Your task to perform on an android device: change the clock style Image 0: 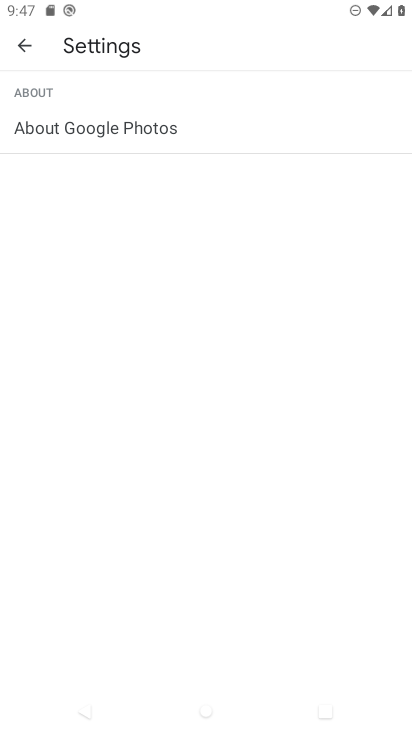
Step 0: press home button
Your task to perform on an android device: change the clock style Image 1: 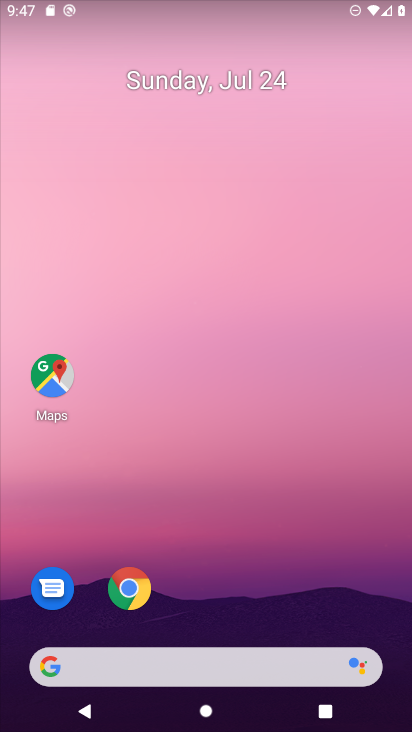
Step 1: drag from (232, 633) to (253, 10)
Your task to perform on an android device: change the clock style Image 2: 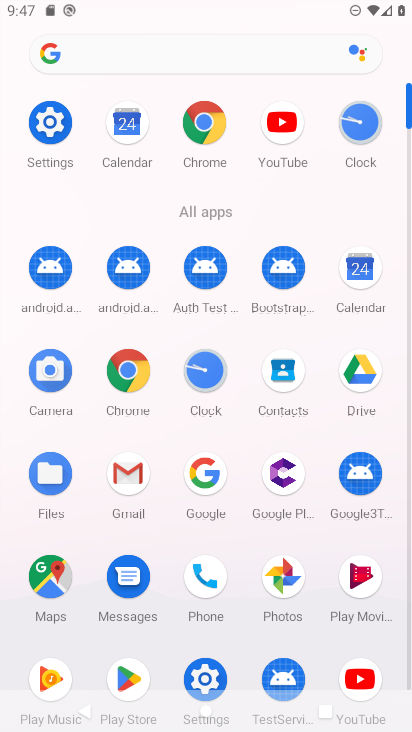
Step 2: click (353, 128)
Your task to perform on an android device: change the clock style Image 3: 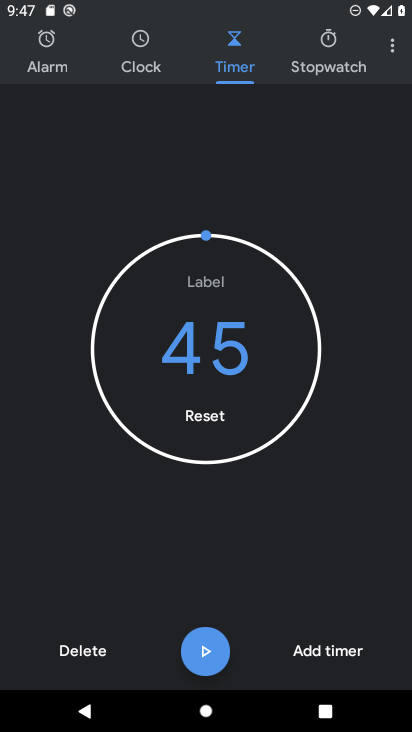
Step 3: click (394, 56)
Your task to perform on an android device: change the clock style Image 4: 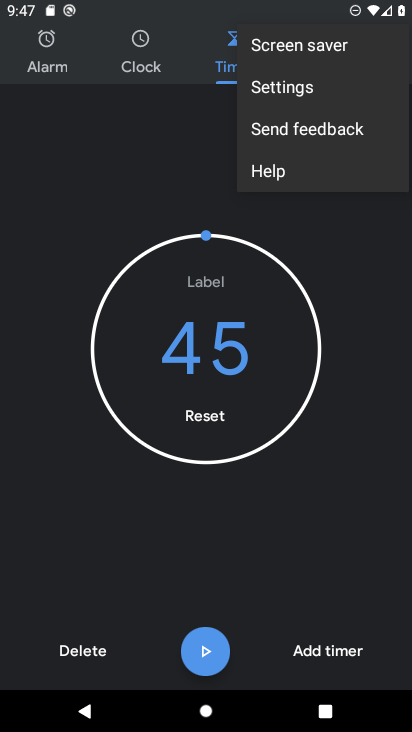
Step 4: click (320, 97)
Your task to perform on an android device: change the clock style Image 5: 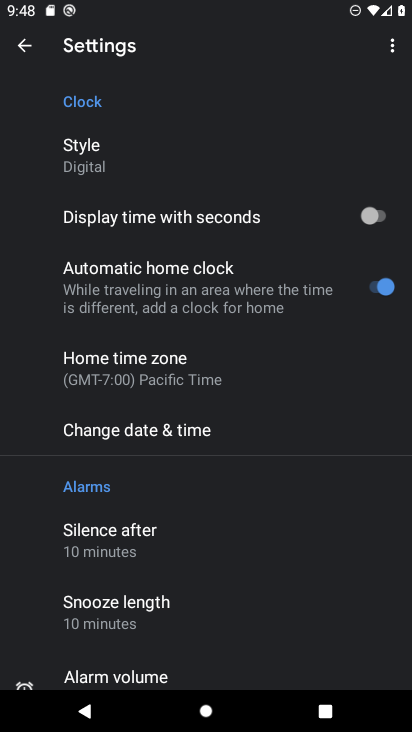
Step 5: click (65, 151)
Your task to perform on an android device: change the clock style Image 6: 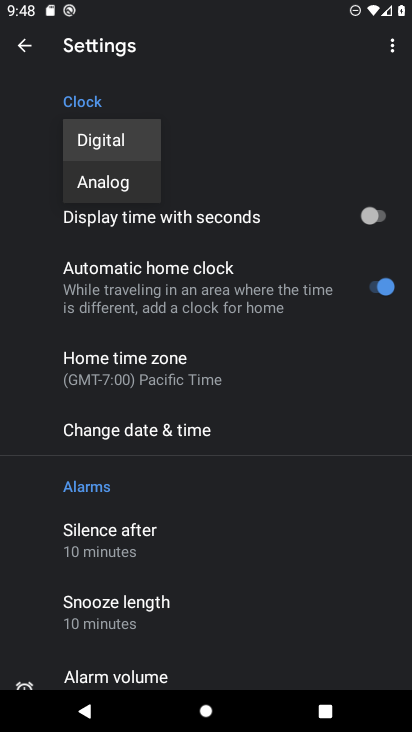
Step 6: click (108, 192)
Your task to perform on an android device: change the clock style Image 7: 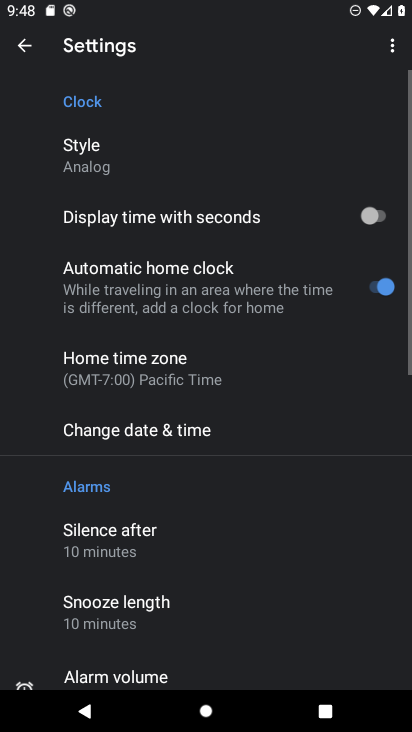
Step 7: task complete